Your task to perform on an android device: all mails in gmail Image 0: 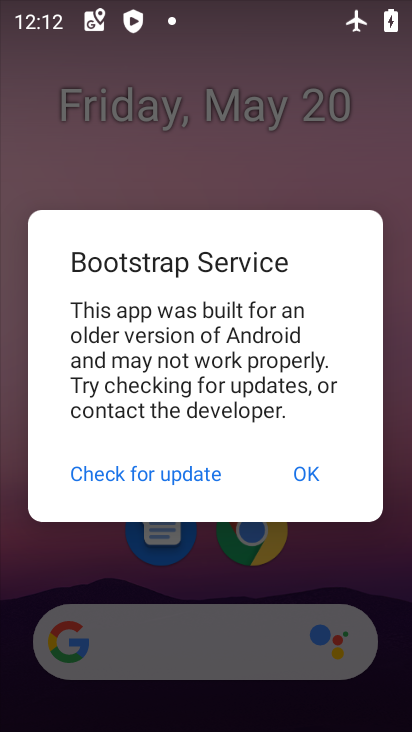
Step 0: press home button
Your task to perform on an android device: all mails in gmail Image 1: 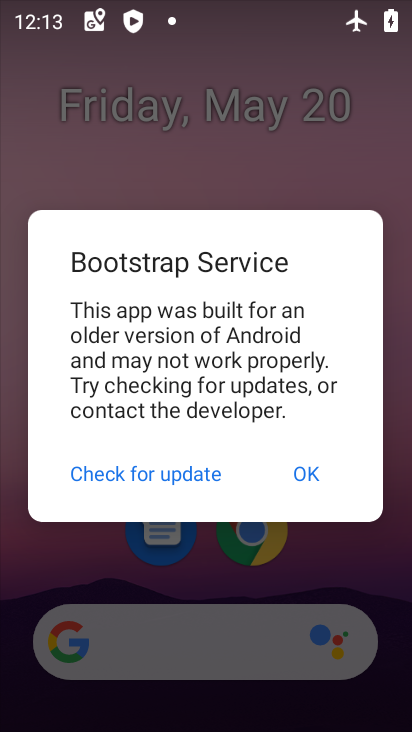
Step 1: click (307, 480)
Your task to perform on an android device: all mails in gmail Image 2: 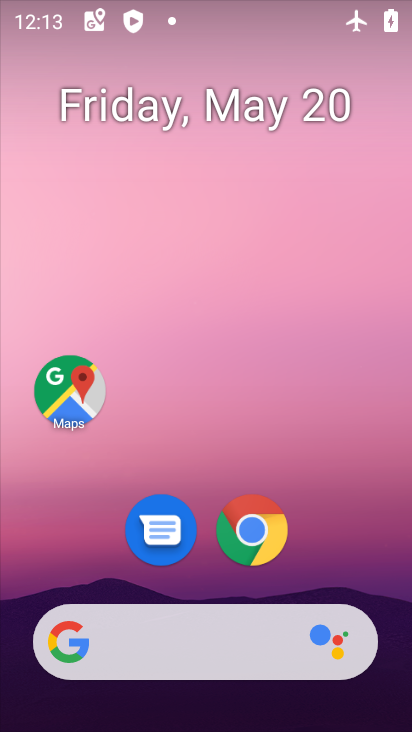
Step 2: drag from (140, 712) to (290, 5)
Your task to perform on an android device: all mails in gmail Image 3: 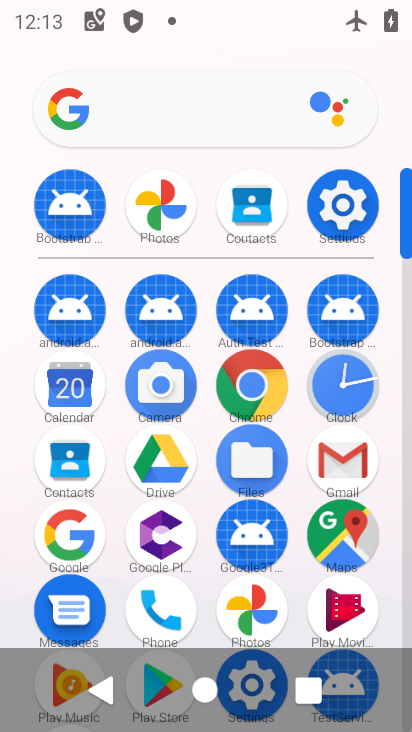
Step 3: click (328, 459)
Your task to perform on an android device: all mails in gmail Image 4: 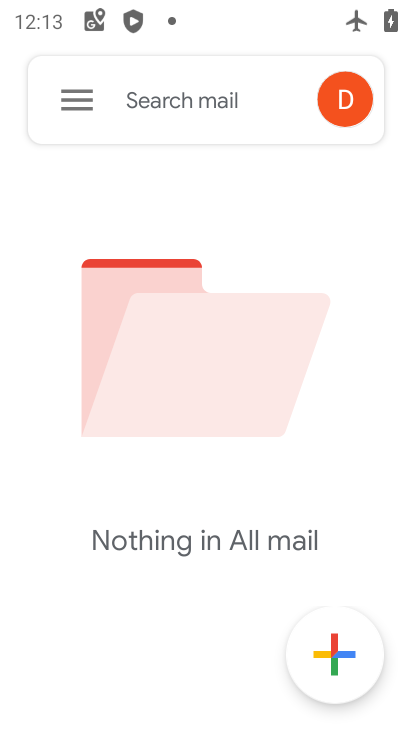
Step 4: task complete